Your task to perform on an android device: Open maps Image 0: 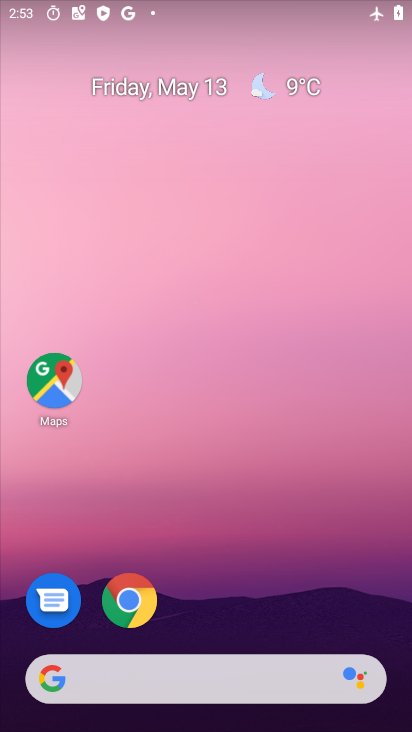
Step 0: drag from (174, 627) to (213, 259)
Your task to perform on an android device: Open maps Image 1: 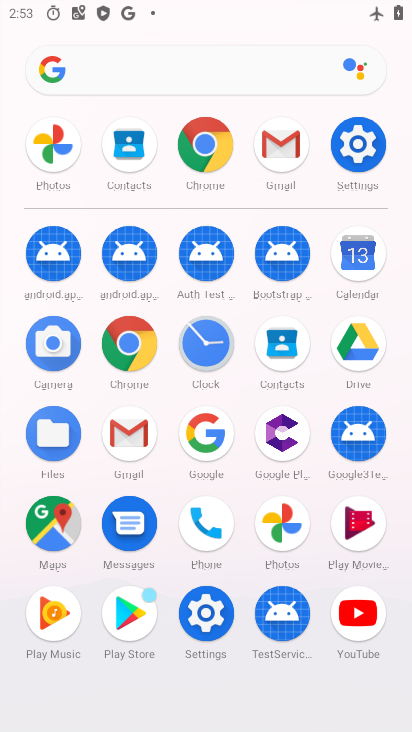
Step 1: click (40, 539)
Your task to perform on an android device: Open maps Image 2: 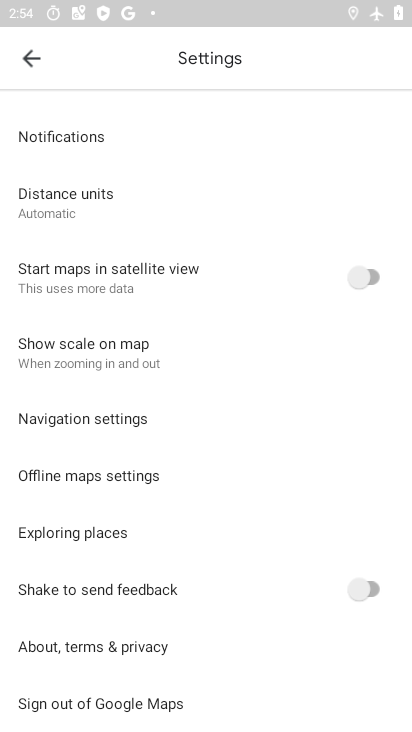
Step 2: drag from (174, 557) to (274, 252)
Your task to perform on an android device: Open maps Image 3: 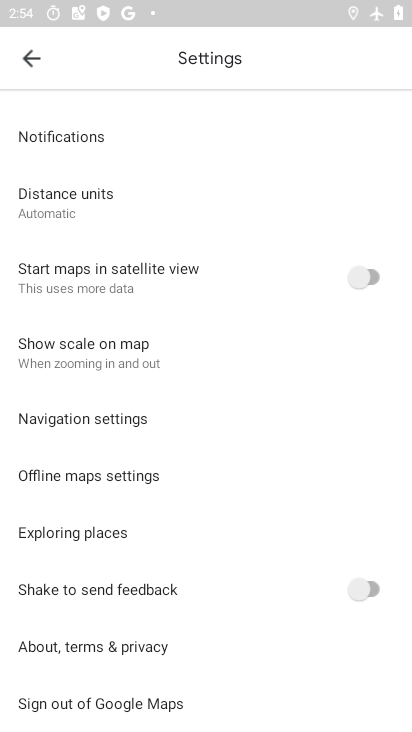
Step 3: click (21, 61)
Your task to perform on an android device: Open maps Image 4: 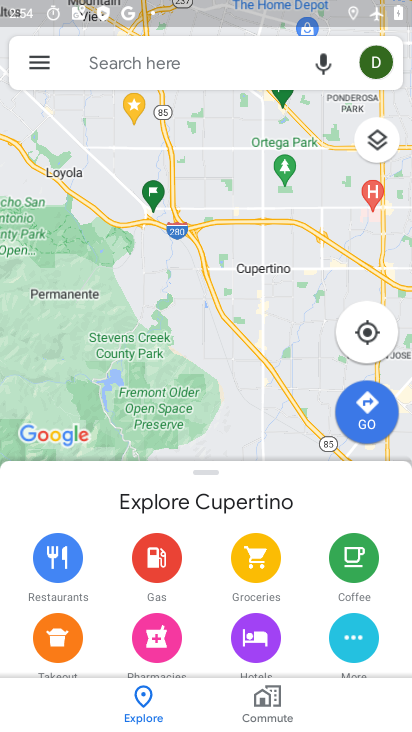
Step 4: task complete